Your task to perform on an android device: check out phone information Image 0: 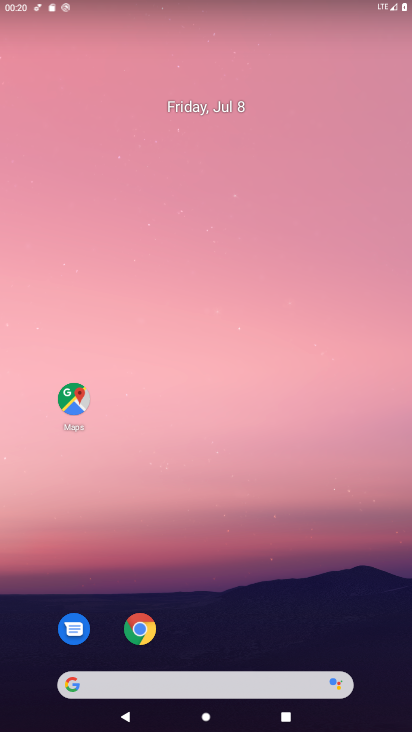
Step 0: drag from (318, 601) to (377, 12)
Your task to perform on an android device: check out phone information Image 1: 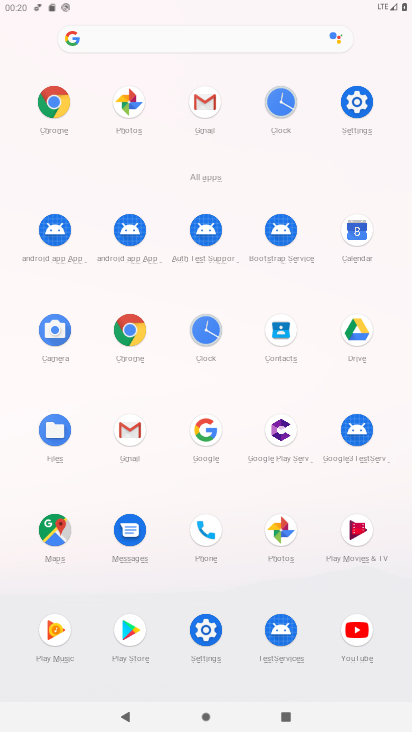
Step 1: click (366, 100)
Your task to perform on an android device: check out phone information Image 2: 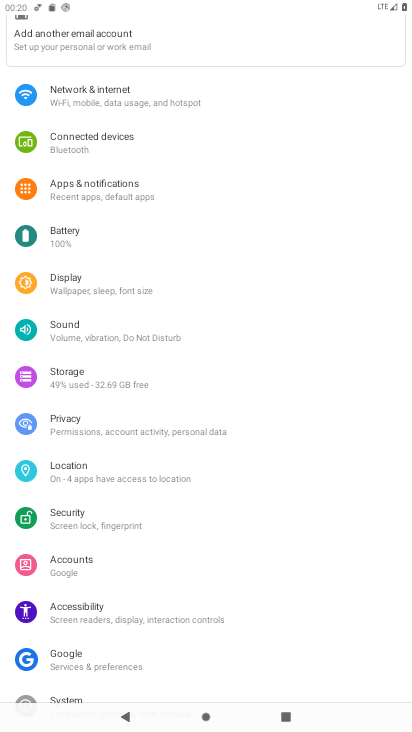
Step 2: drag from (101, 670) to (62, 281)
Your task to perform on an android device: check out phone information Image 3: 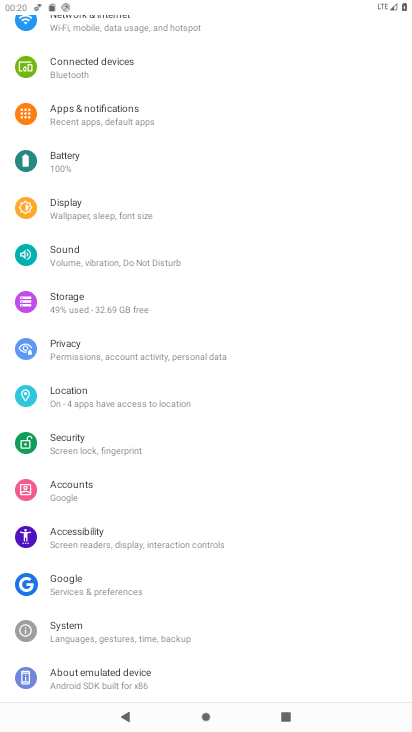
Step 3: click (68, 673)
Your task to perform on an android device: check out phone information Image 4: 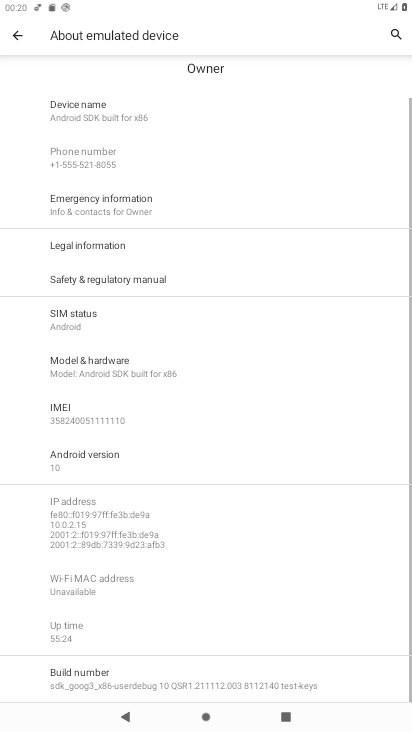
Step 4: task complete